Your task to perform on an android device: all mails in gmail Image 0: 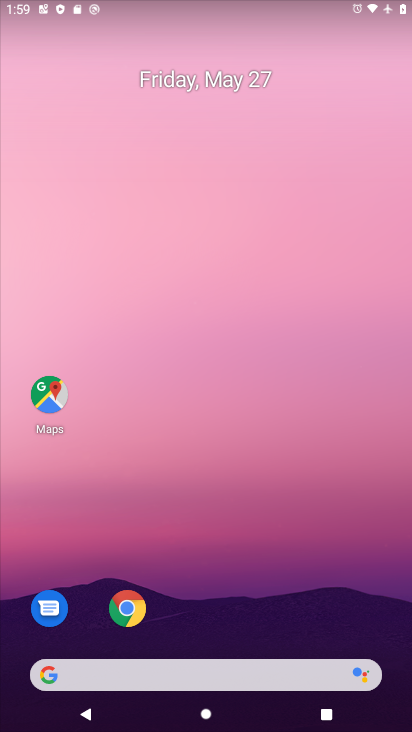
Step 0: drag from (139, 673) to (373, 154)
Your task to perform on an android device: all mails in gmail Image 1: 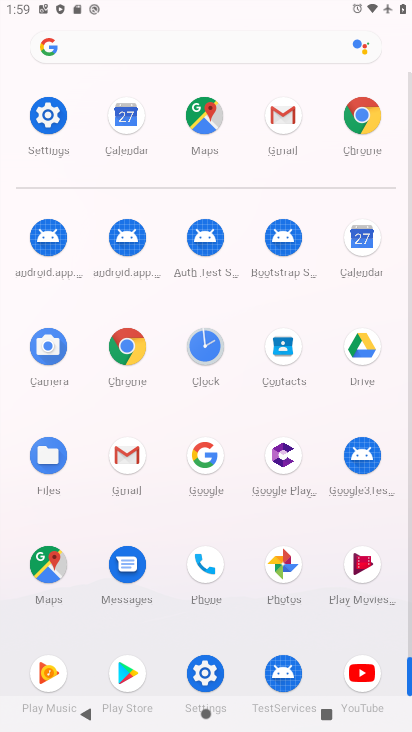
Step 1: click (280, 115)
Your task to perform on an android device: all mails in gmail Image 2: 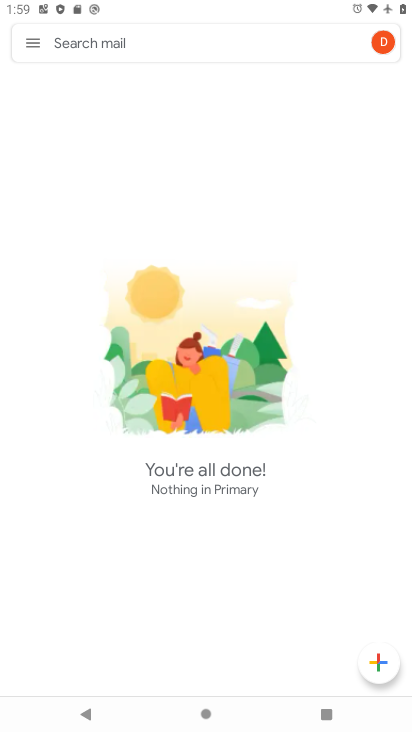
Step 2: click (32, 45)
Your task to perform on an android device: all mails in gmail Image 3: 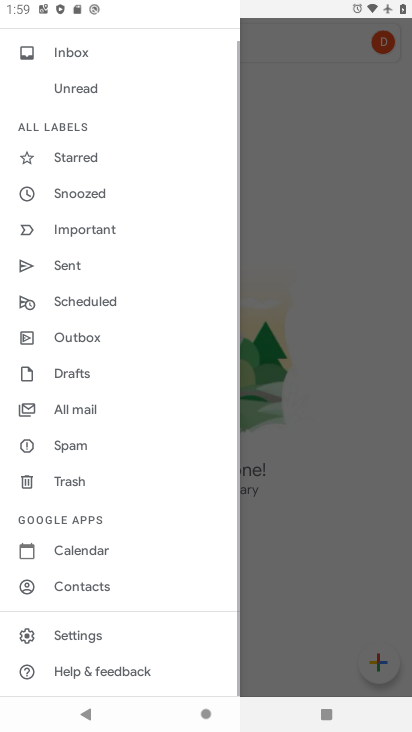
Step 3: click (78, 412)
Your task to perform on an android device: all mails in gmail Image 4: 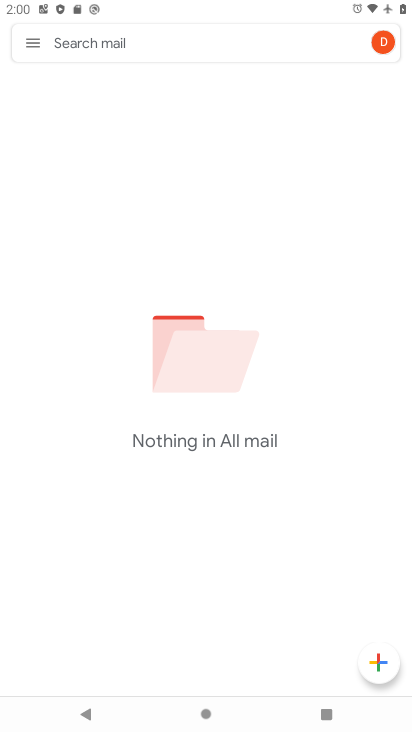
Step 4: task complete